Your task to perform on an android device: Open eBay Image 0: 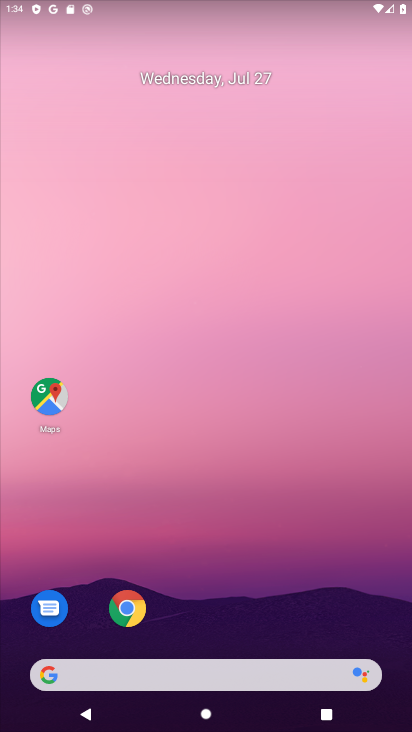
Step 0: click (140, 678)
Your task to perform on an android device: Open eBay Image 1: 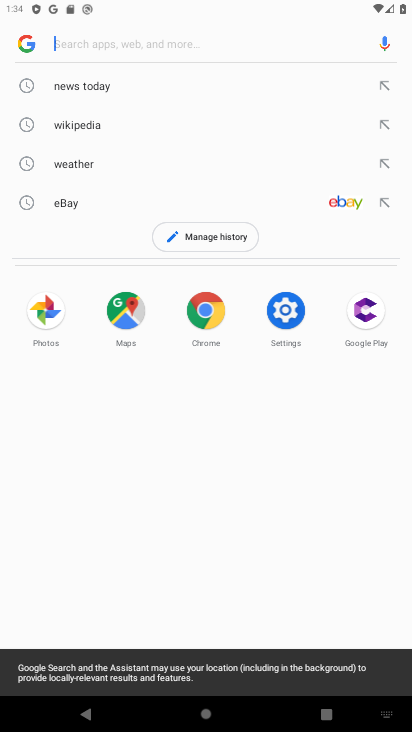
Step 1: click (63, 203)
Your task to perform on an android device: Open eBay Image 2: 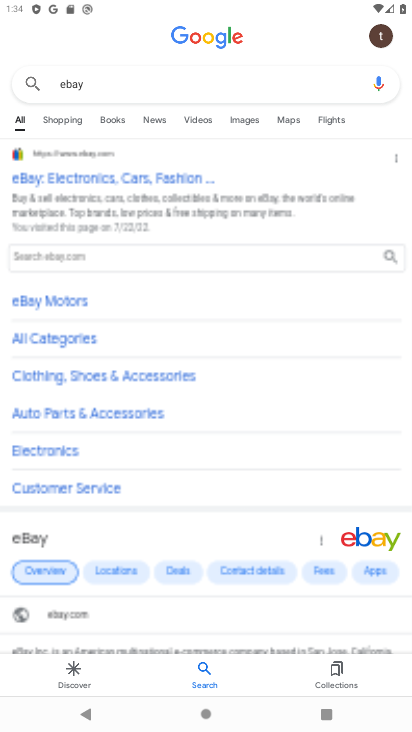
Step 2: task complete